Your task to perform on an android device: open app "Google Play services" Image 0: 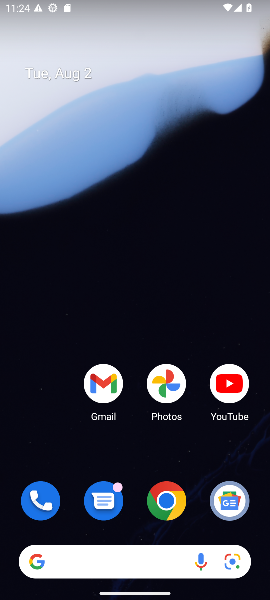
Step 0: drag from (172, 464) to (88, 133)
Your task to perform on an android device: open app "Google Play services" Image 1: 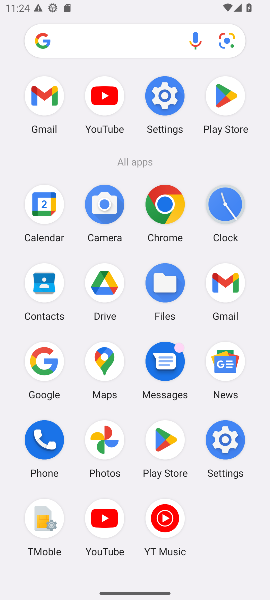
Step 1: click (224, 90)
Your task to perform on an android device: open app "Google Play services" Image 2: 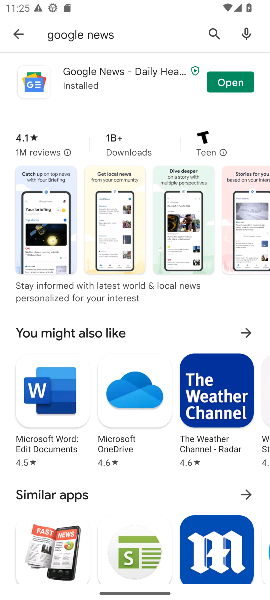
Step 2: click (143, 30)
Your task to perform on an android device: open app "Google Play services" Image 3: 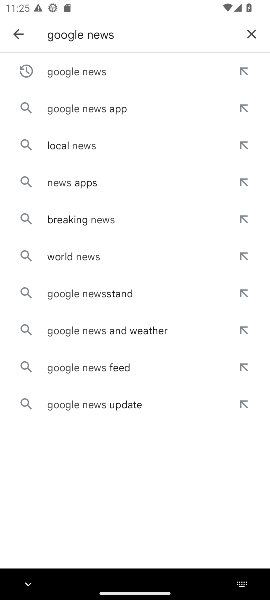
Step 3: click (255, 31)
Your task to perform on an android device: open app "Google Play services" Image 4: 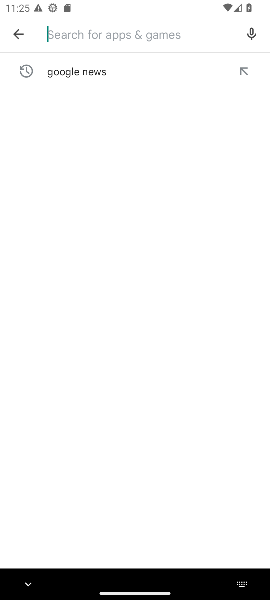
Step 4: type "google play services"
Your task to perform on an android device: open app "Google Play services" Image 5: 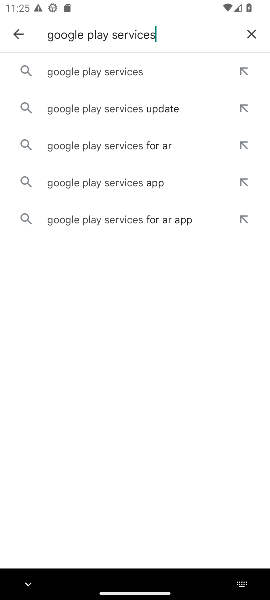
Step 5: click (141, 70)
Your task to perform on an android device: open app "Google Play services" Image 6: 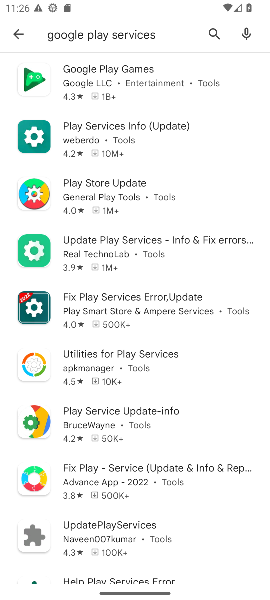
Step 6: task complete